Your task to perform on an android device: set the timer Image 0: 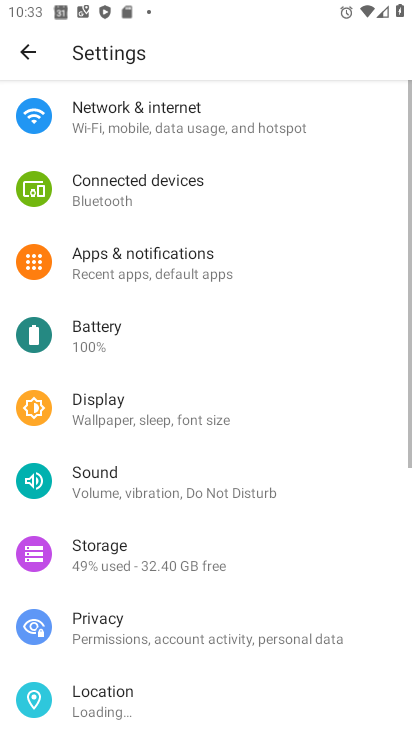
Step 0: press home button
Your task to perform on an android device: set the timer Image 1: 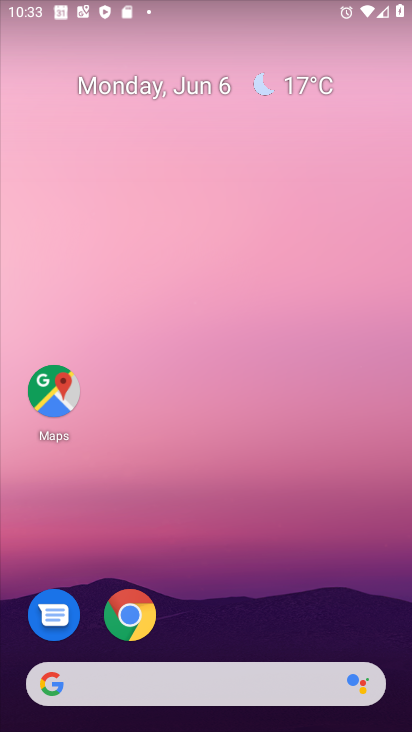
Step 1: drag from (224, 644) to (229, 85)
Your task to perform on an android device: set the timer Image 2: 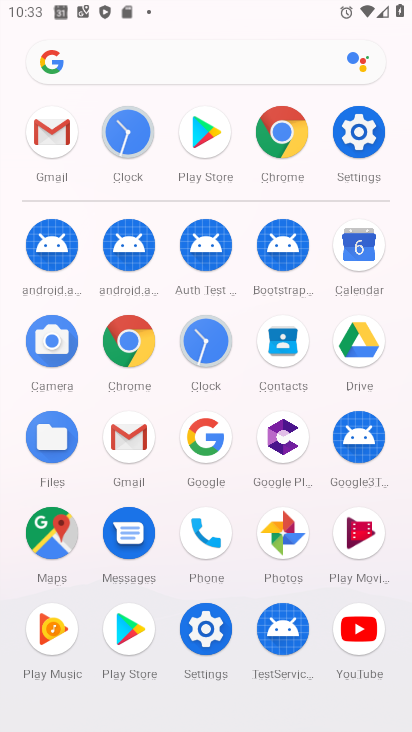
Step 2: click (126, 126)
Your task to perform on an android device: set the timer Image 3: 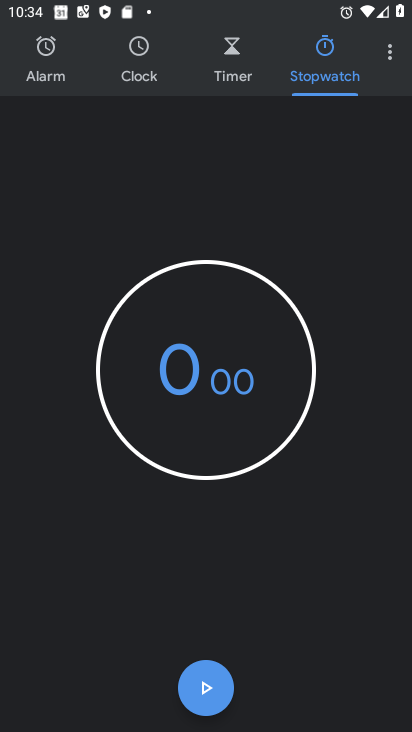
Step 3: click (243, 37)
Your task to perform on an android device: set the timer Image 4: 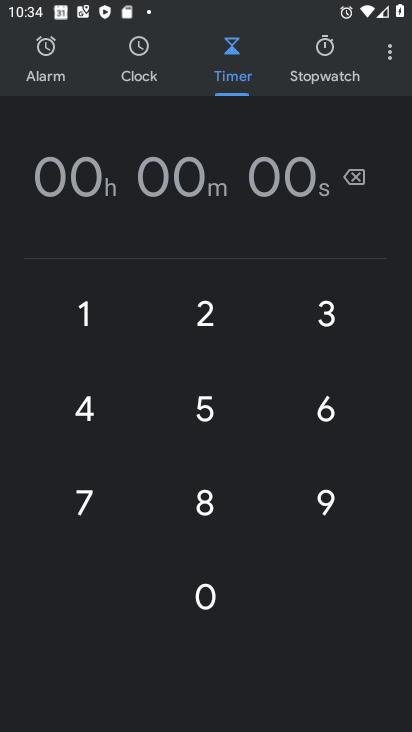
Step 4: click (197, 311)
Your task to perform on an android device: set the timer Image 5: 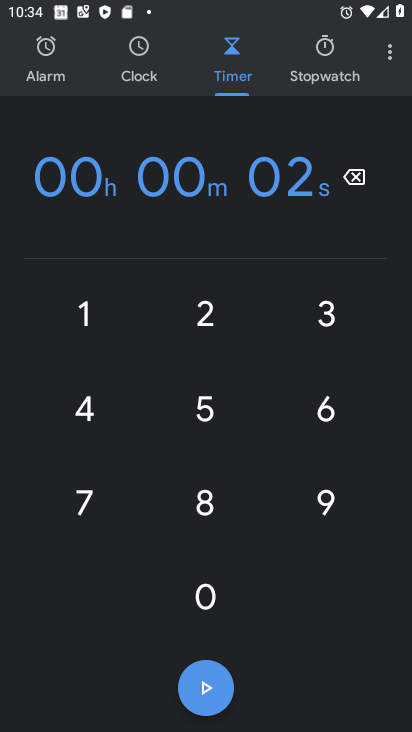
Step 5: click (207, 601)
Your task to perform on an android device: set the timer Image 6: 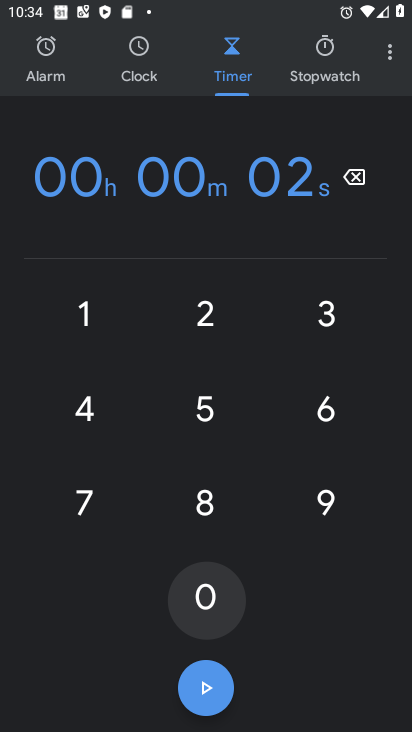
Step 6: click (207, 601)
Your task to perform on an android device: set the timer Image 7: 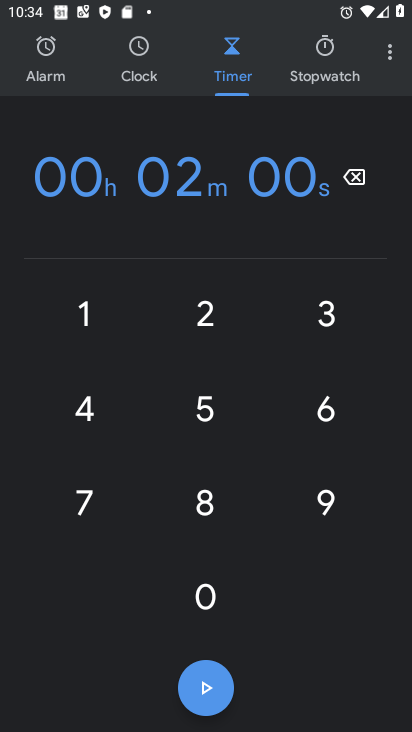
Step 7: click (204, 679)
Your task to perform on an android device: set the timer Image 8: 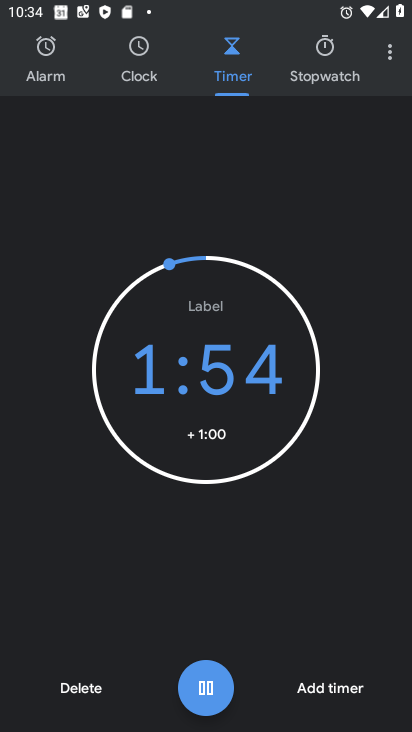
Step 8: click (80, 699)
Your task to perform on an android device: set the timer Image 9: 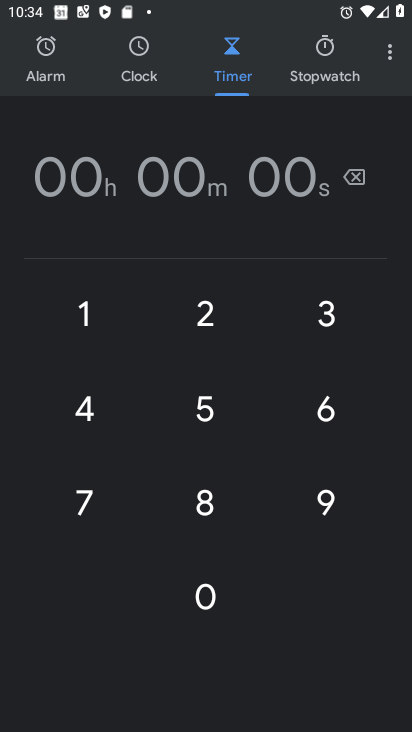
Step 9: click (207, 310)
Your task to perform on an android device: set the timer Image 10: 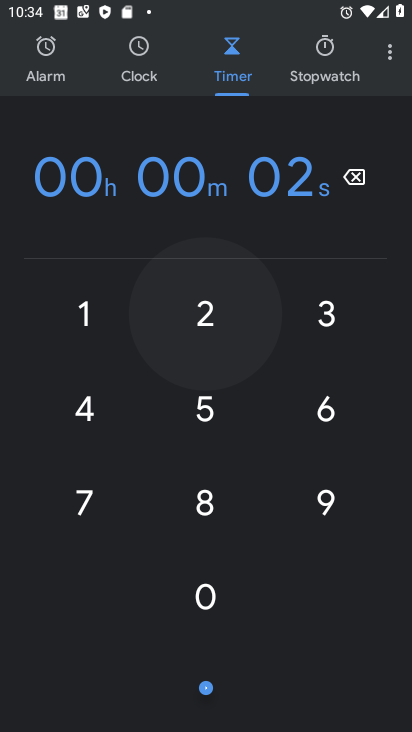
Step 10: click (218, 590)
Your task to perform on an android device: set the timer Image 11: 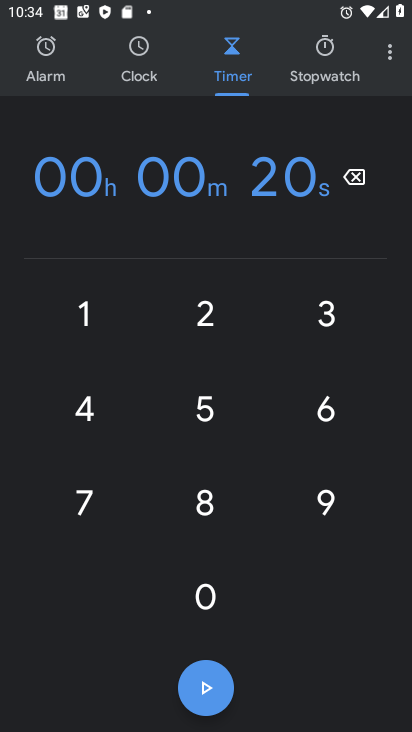
Step 11: click (218, 594)
Your task to perform on an android device: set the timer Image 12: 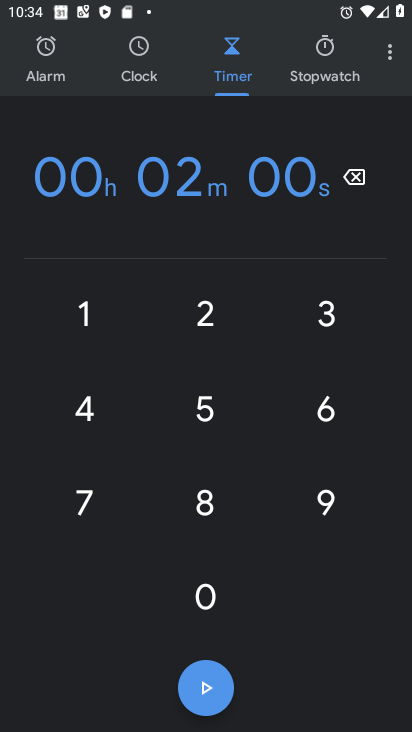
Step 12: click (211, 686)
Your task to perform on an android device: set the timer Image 13: 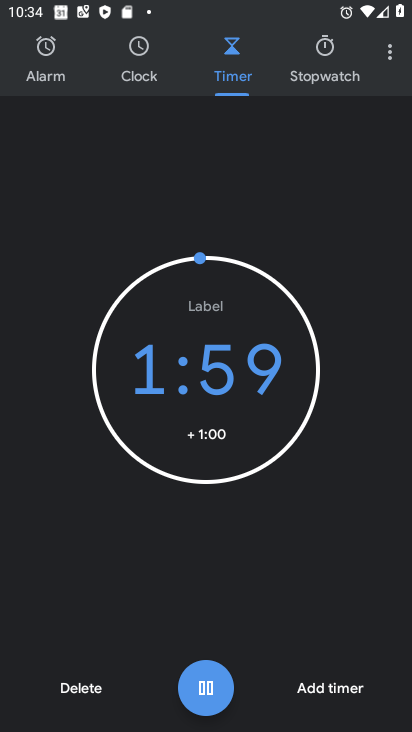
Step 13: task complete